Your task to perform on an android device: Open sound settings Image 0: 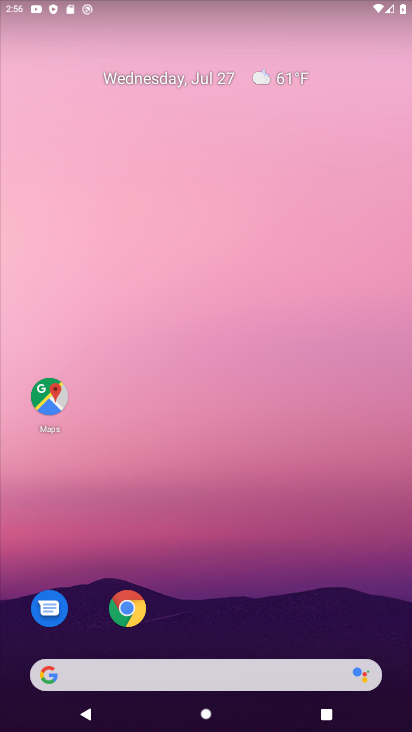
Step 0: drag from (261, 590) to (287, 172)
Your task to perform on an android device: Open sound settings Image 1: 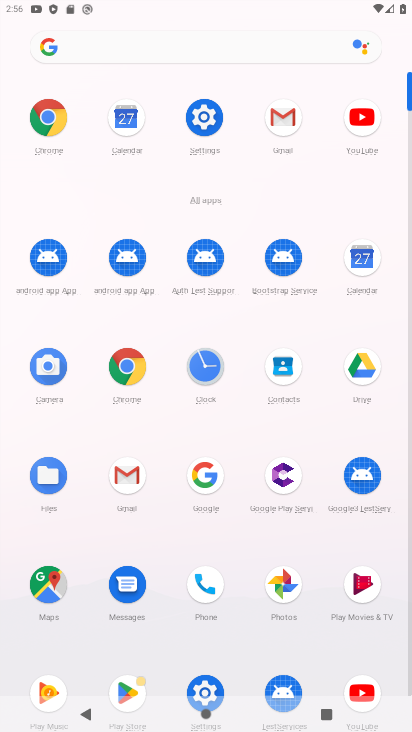
Step 1: click (209, 136)
Your task to perform on an android device: Open sound settings Image 2: 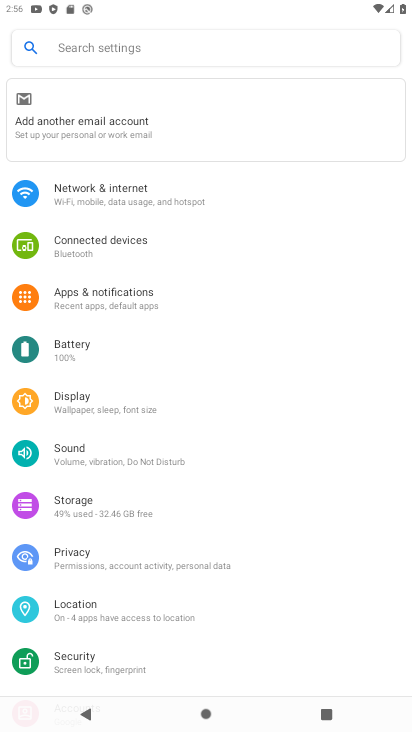
Step 2: click (110, 455)
Your task to perform on an android device: Open sound settings Image 3: 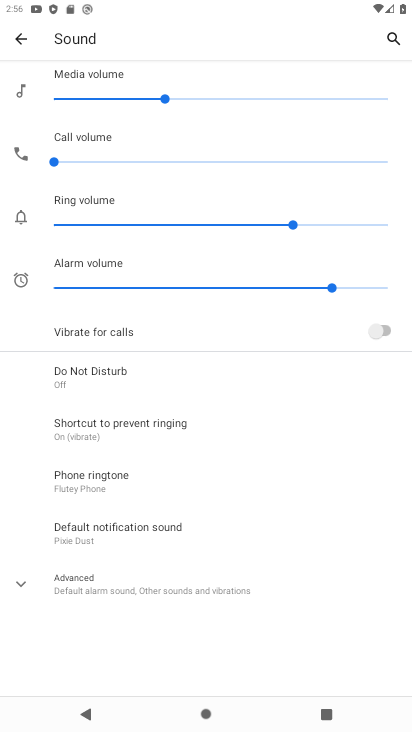
Step 3: task complete